Your task to perform on an android device: Open the map Image 0: 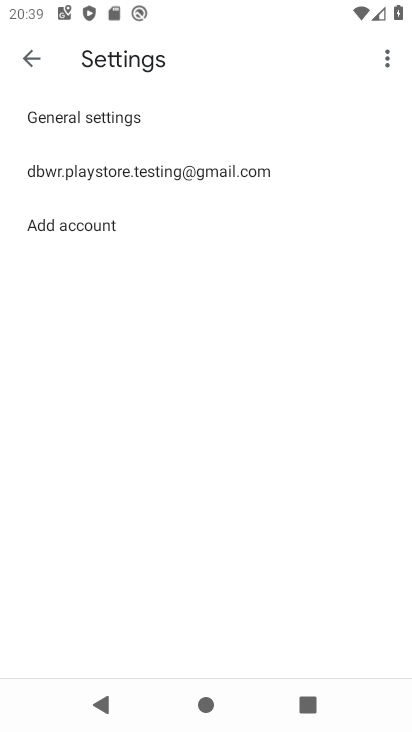
Step 0: press home button
Your task to perform on an android device: Open the map Image 1: 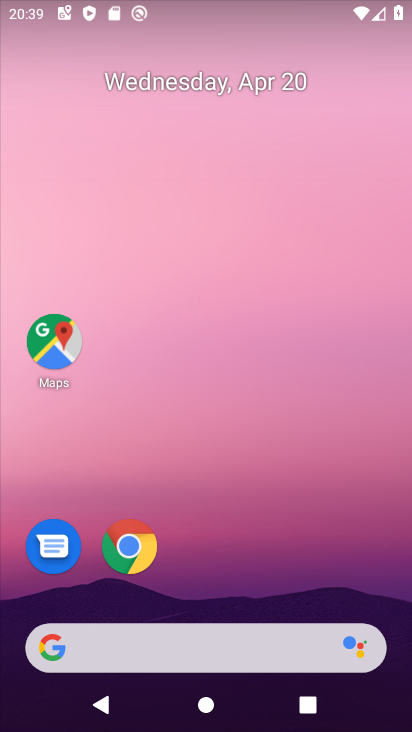
Step 1: click (65, 343)
Your task to perform on an android device: Open the map Image 2: 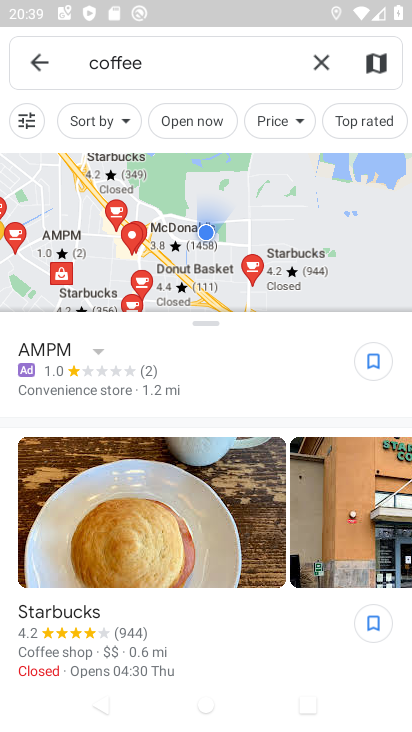
Step 2: task complete